Your task to perform on an android device: toggle data saver in the chrome app Image 0: 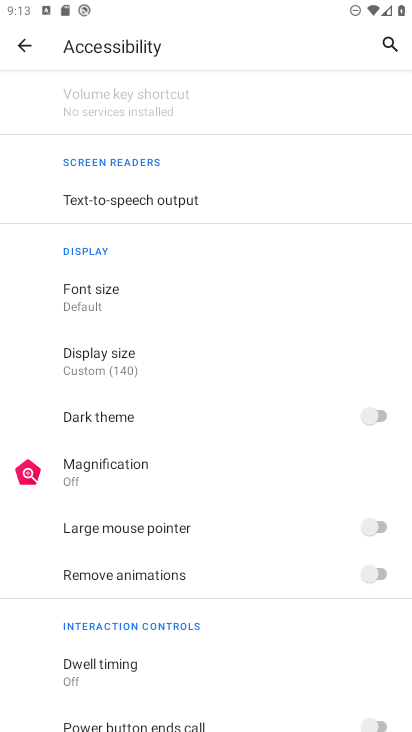
Step 0: press home button
Your task to perform on an android device: toggle data saver in the chrome app Image 1: 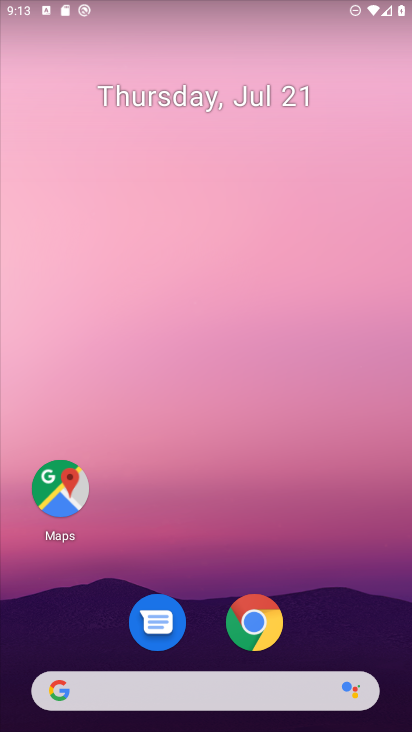
Step 1: drag from (192, 709) to (136, 63)
Your task to perform on an android device: toggle data saver in the chrome app Image 2: 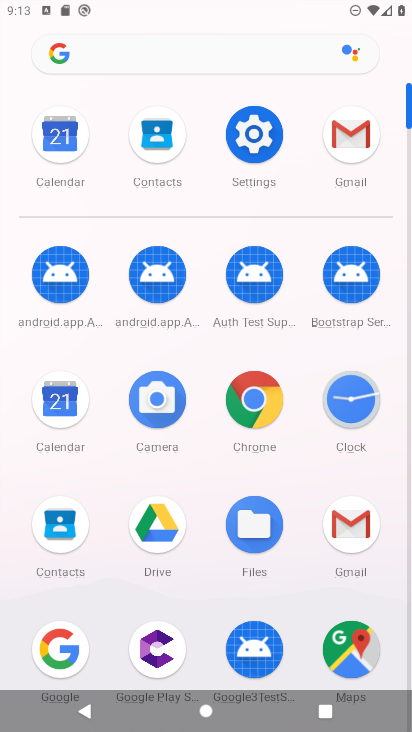
Step 2: click (249, 407)
Your task to perform on an android device: toggle data saver in the chrome app Image 3: 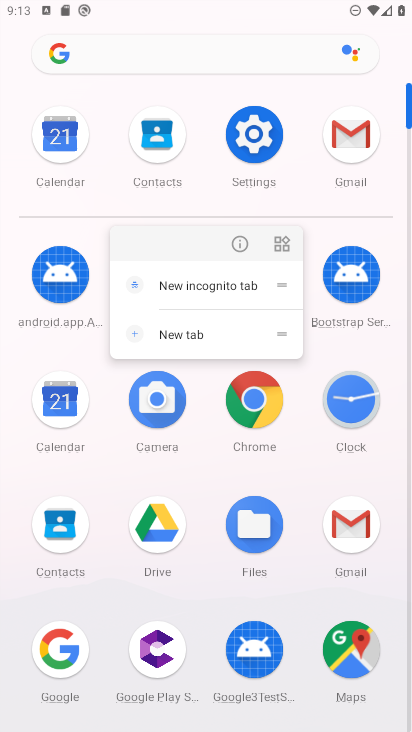
Step 3: click (249, 407)
Your task to perform on an android device: toggle data saver in the chrome app Image 4: 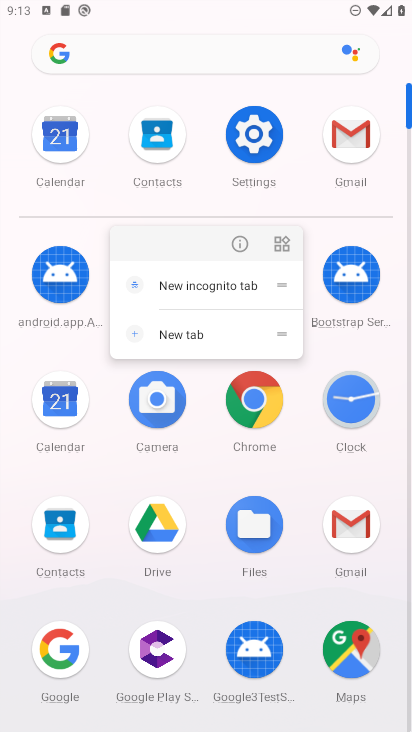
Step 4: click (249, 407)
Your task to perform on an android device: toggle data saver in the chrome app Image 5: 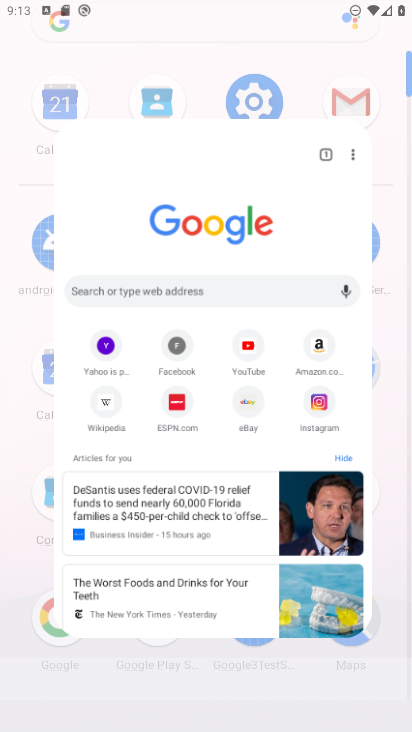
Step 5: click (249, 407)
Your task to perform on an android device: toggle data saver in the chrome app Image 6: 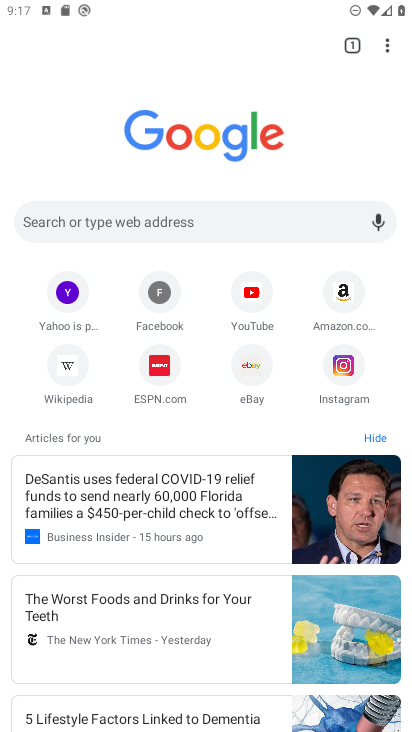
Step 6: click (391, 44)
Your task to perform on an android device: toggle data saver in the chrome app Image 7: 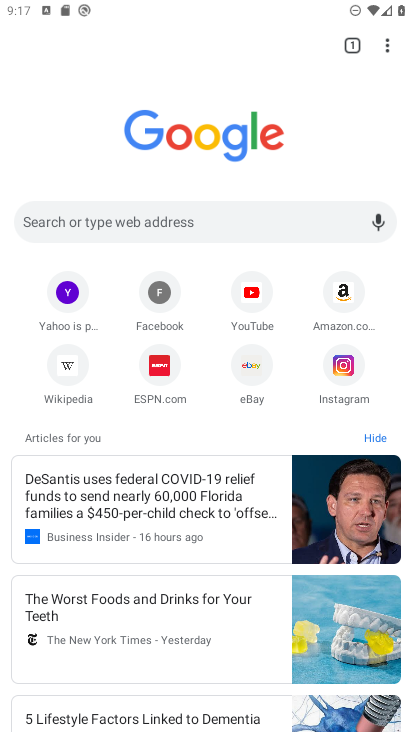
Step 7: click (391, 44)
Your task to perform on an android device: toggle data saver in the chrome app Image 8: 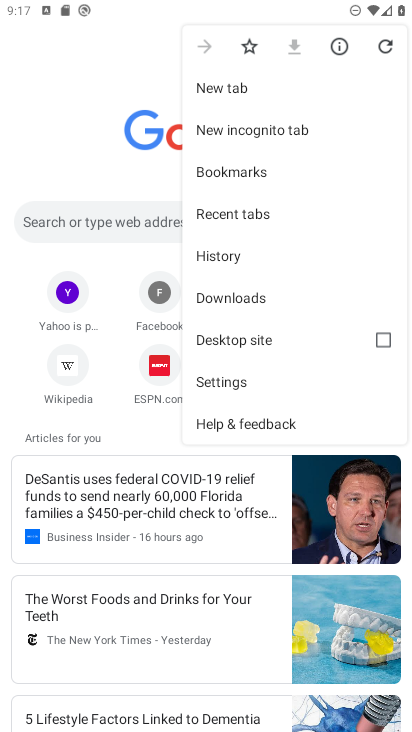
Step 8: click (254, 385)
Your task to perform on an android device: toggle data saver in the chrome app Image 9: 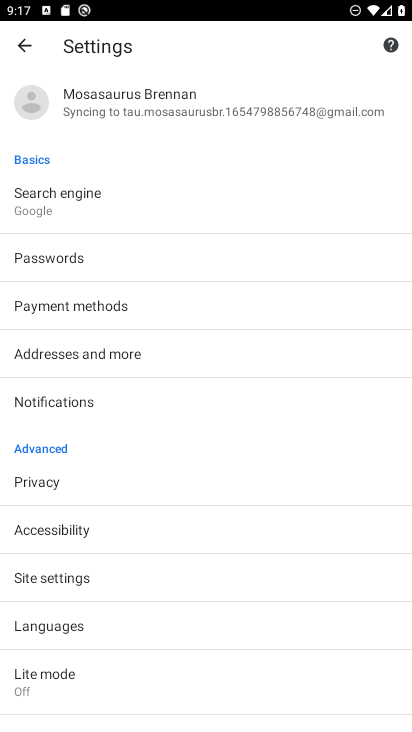
Step 9: click (82, 676)
Your task to perform on an android device: toggle data saver in the chrome app Image 10: 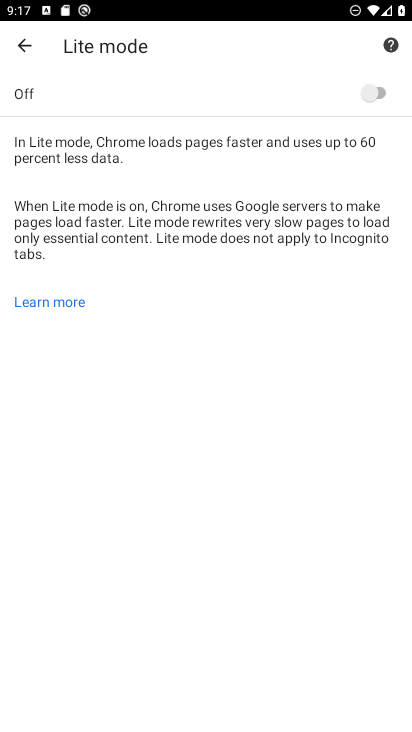
Step 10: click (380, 90)
Your task to perform on an android device: toggle data saver in the chrome app Image 11: 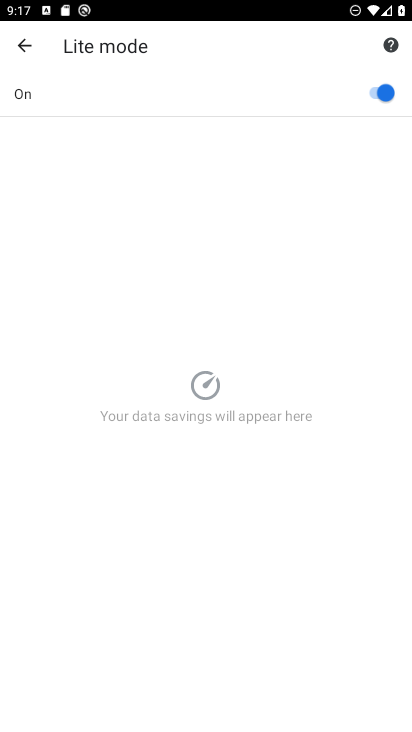
Step 11: task complete